Your task to perform on an android device: What is the recent news? Image 0: 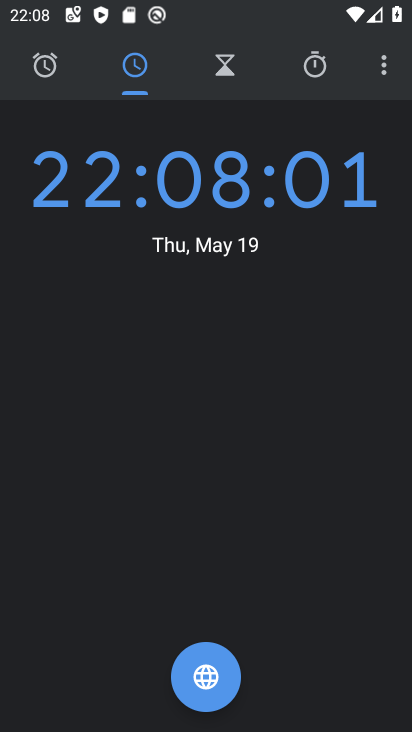
Step 0: press home button
Your task to perform on an android device: What is the recent news? Image 1: 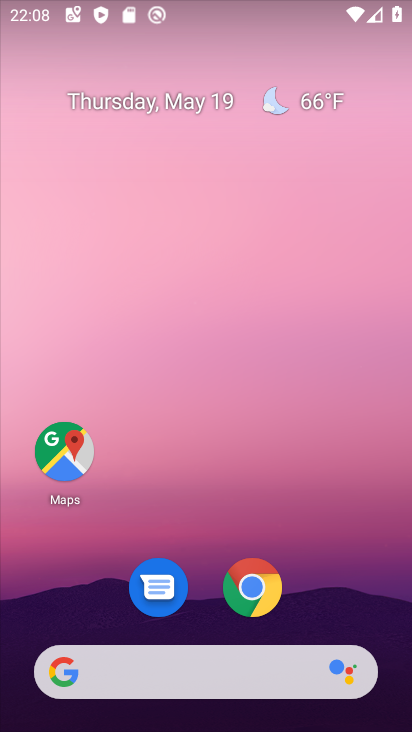
Step 1: drag from (230, 696) to (201, 141)
Your task to perform on an android device: What is the recent news? Image 2: 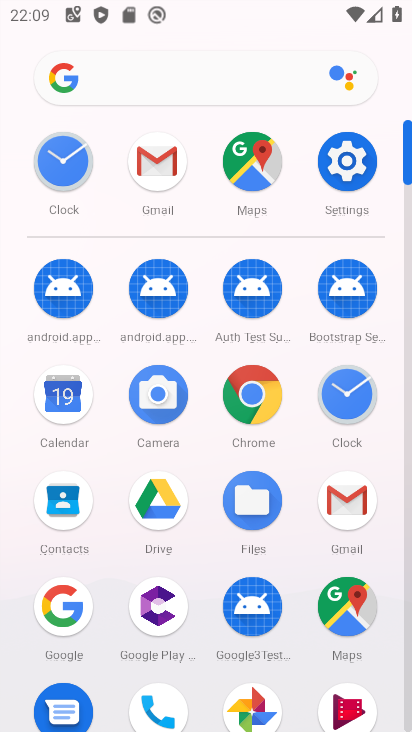
Step 2: click (137, 67)
Your task to perform on an android device: What is the recent news? Image 3: 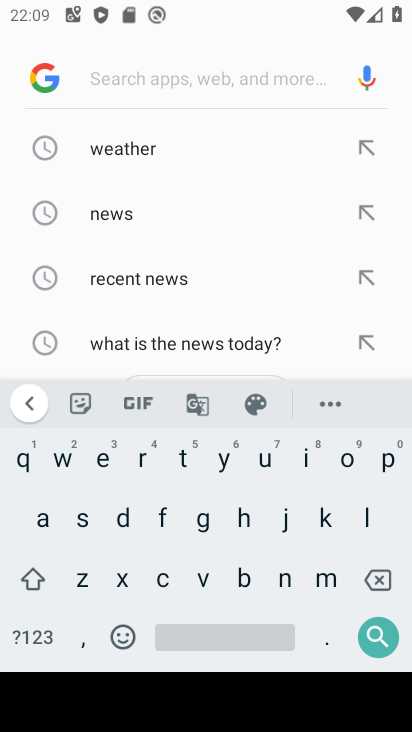
Step 3: click (170, 275)
Your task to perform on an android device: What is the recent news? Image 4: 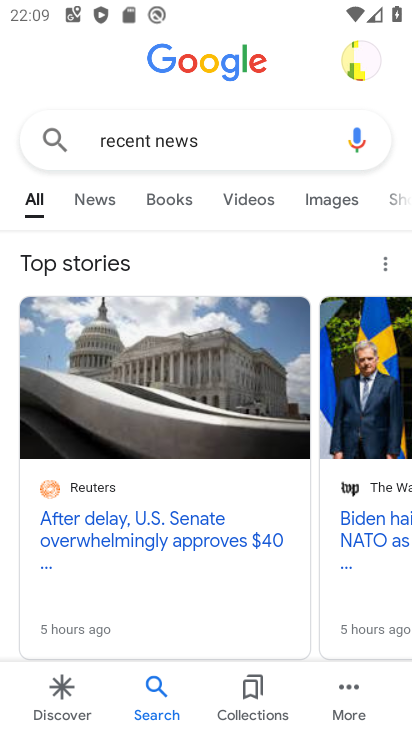
Step 4: task complete